Your task to perform on an android device: add a contact Image 0: 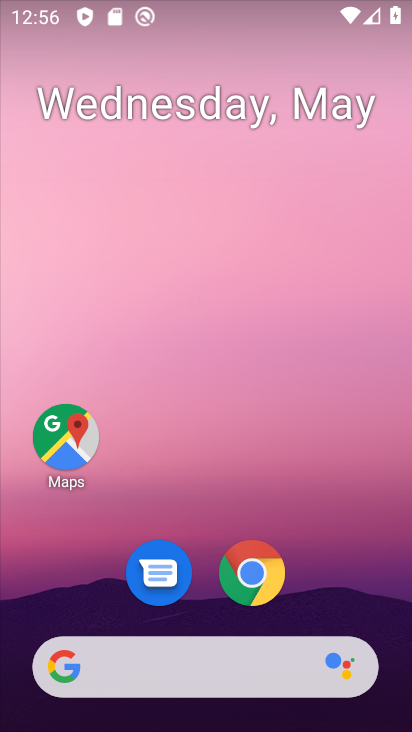
Step 0: drag from (81, 622) to (217, 143)
Your task to perform on an android device: add a contact Image 1: 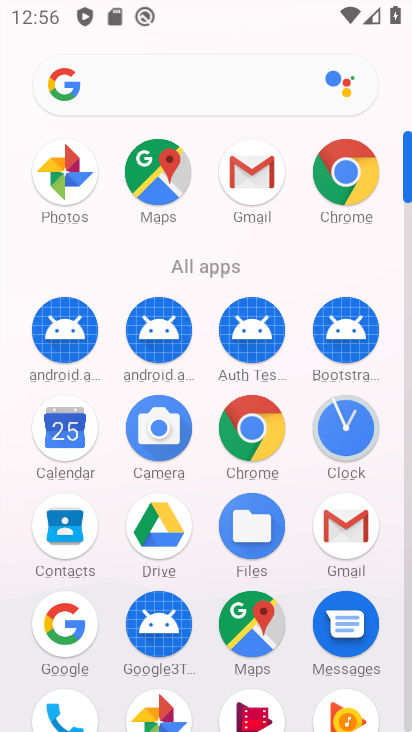
Step 1: click (81, 543)
Your task to perform on an android device: add a contact Image 2: 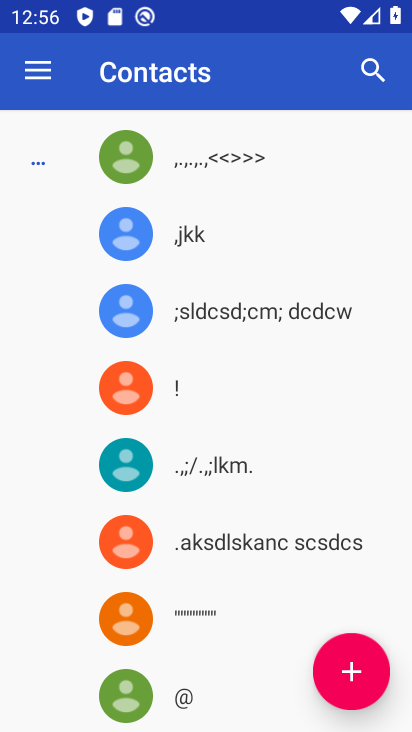
Step 2: click (340, 676)
Your task to perform on an android device: add a contact Image 3: 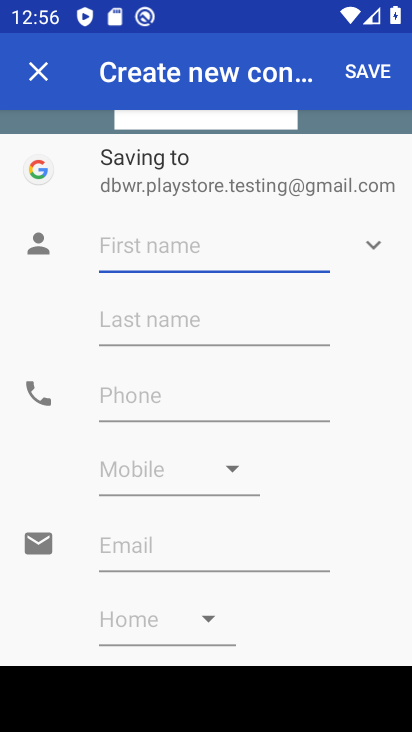
Step 3: type "ghghghgh"
Your task to perform on an android device: add a contact Image 4: 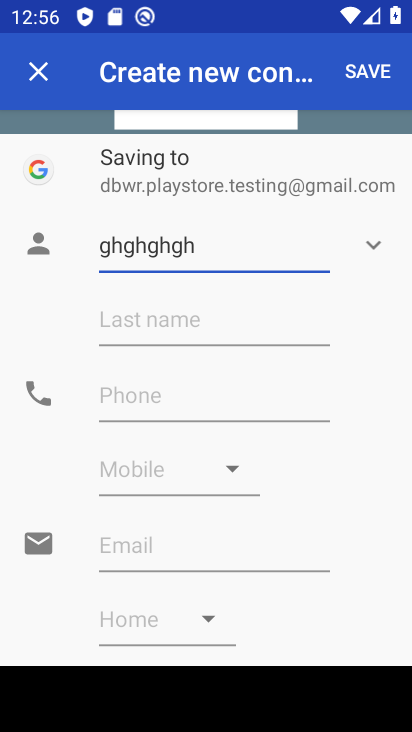
Step 4: click (154, 395)
Your task to perform on an android device: add a contact Image 5: 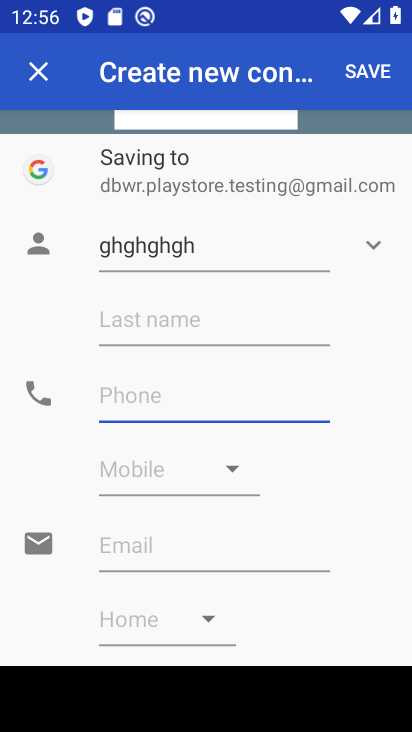
Step 5: type "28828829912"
Your task to perform on an android device: add a contact Image 6: 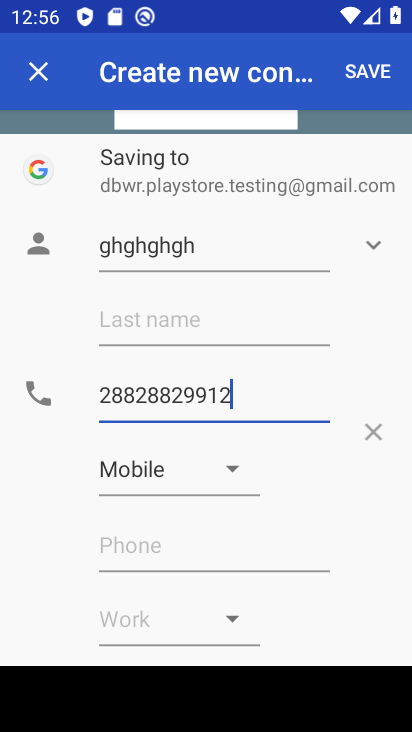
Step 6: click (361, 66)
Your task to perform on an android device: add a contact Image 7: 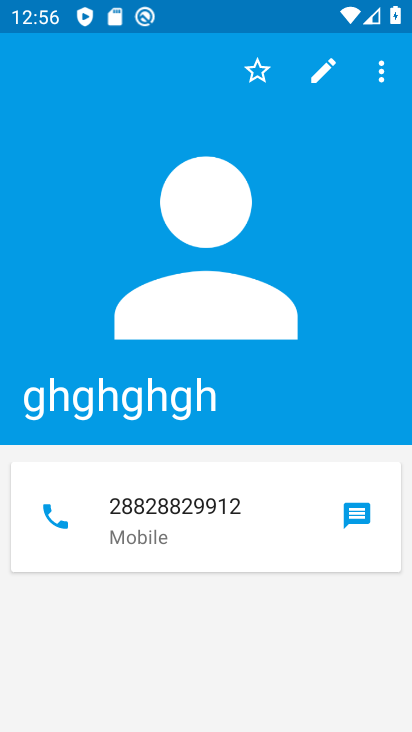
Step 7: task complete